Your task to perform on an android device: Open maps Image 0: 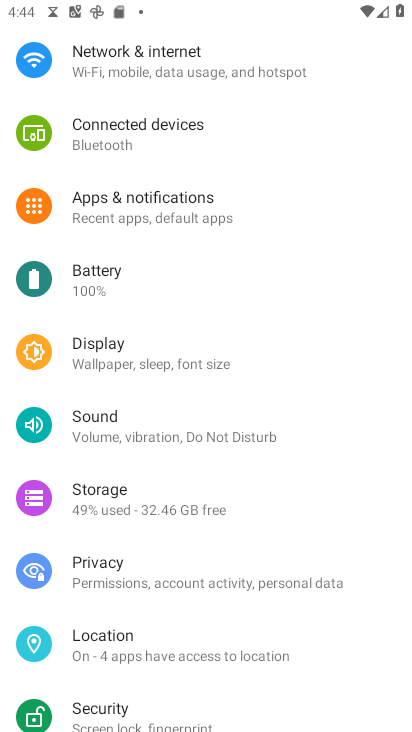
Step 0: press home button
Your task to perform on an android device: Open maps Image 1: 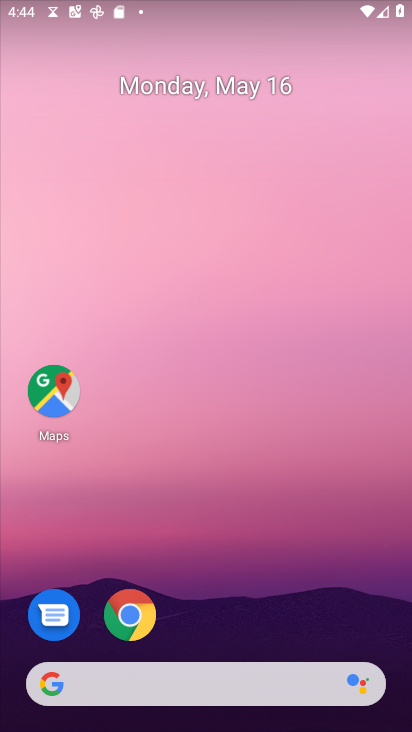
Step 1: drag from (239, 266) to (272, 145)
Your task to perform on an android device: Open maps Image 2: 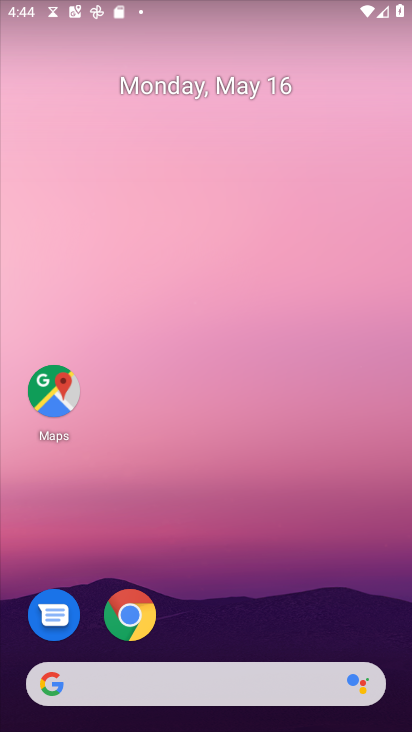
Step 2: click (60, 387)
Your task to perform on an android device: Open maps Image 3: 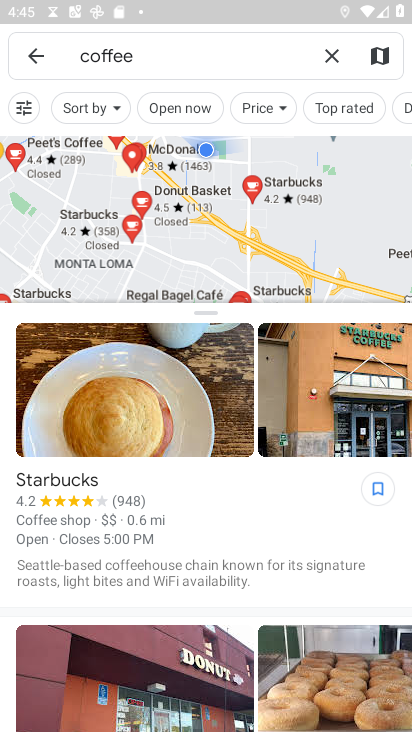
Step 3: task complete